Your task to perform on an android device: turn off location Image 0: 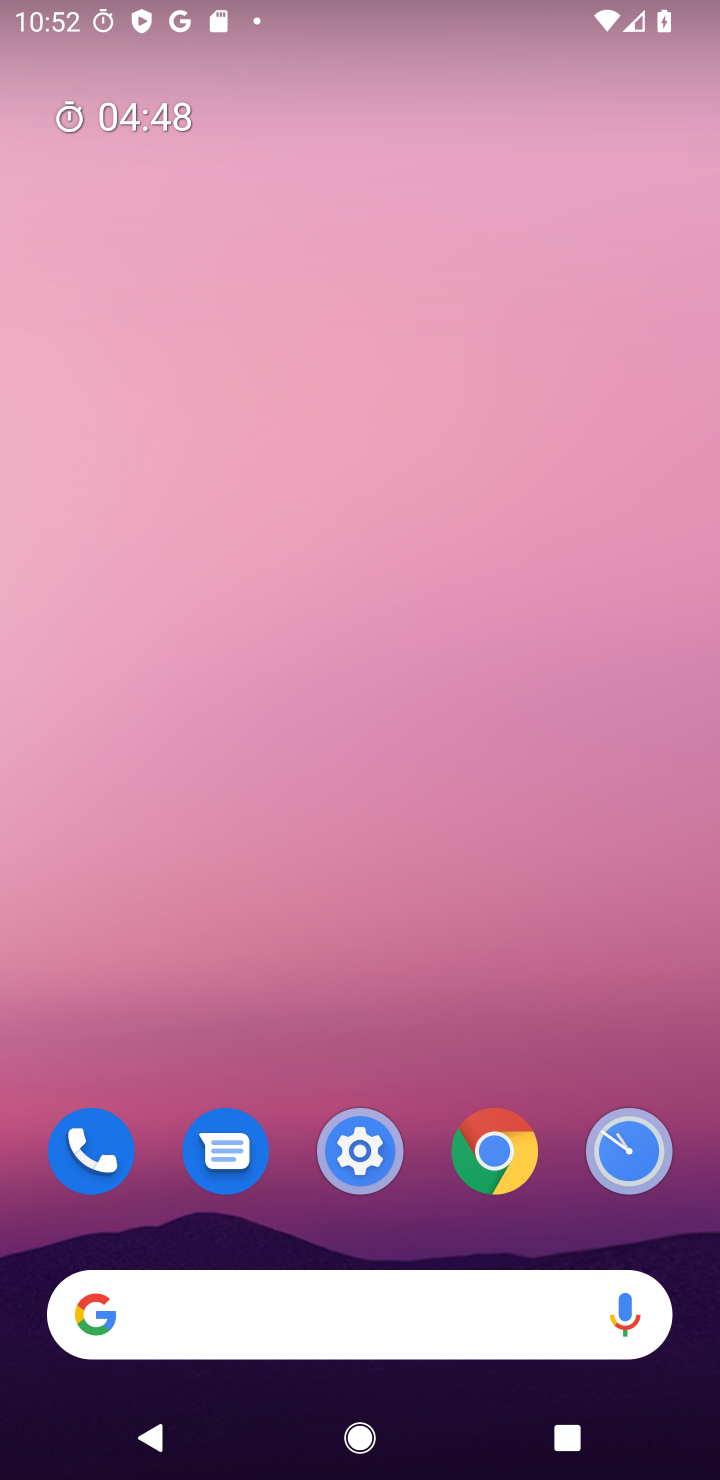
Step 0: click (356, 1158)
Your task to perform on an android device: turn off location Image 1: 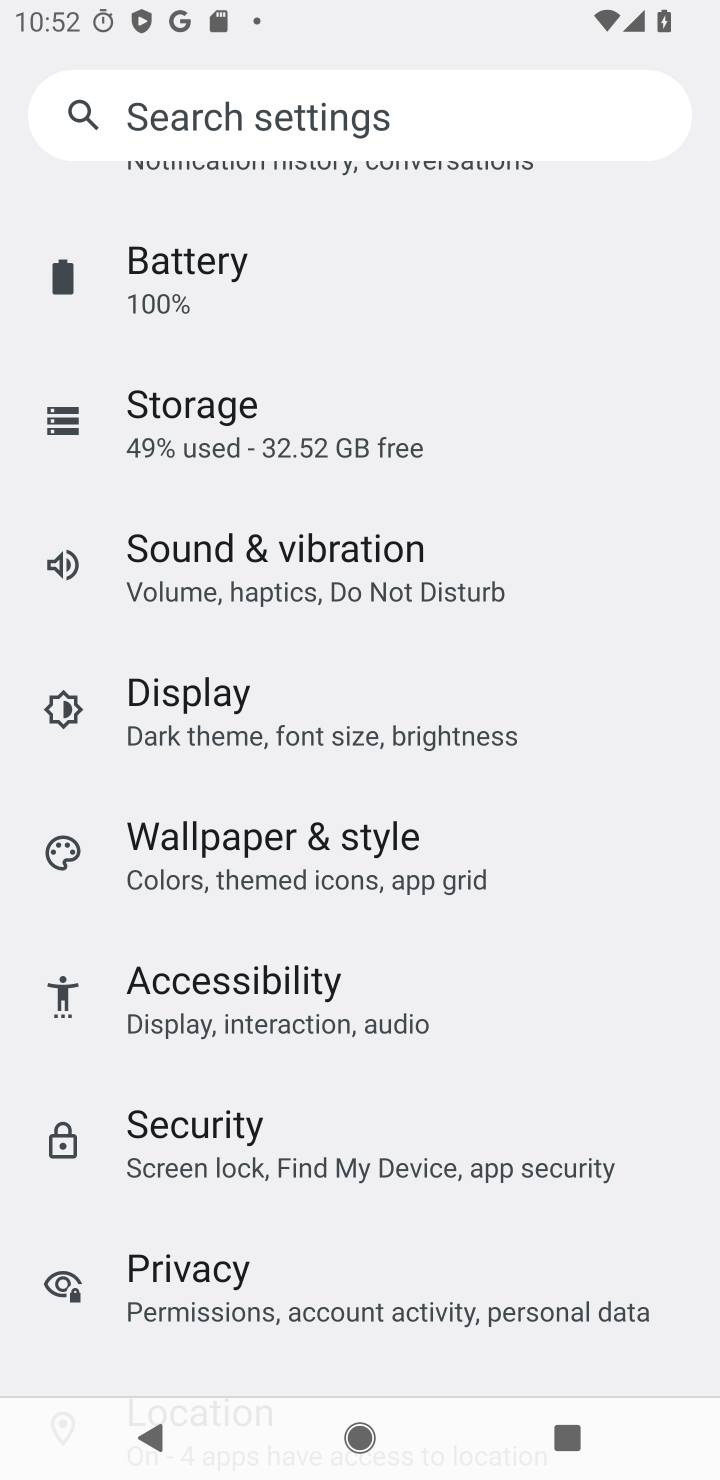
Step 1: drag from (488, 1128) to (269, 586)
Your task to perform on an android device: turn off location Image 2: 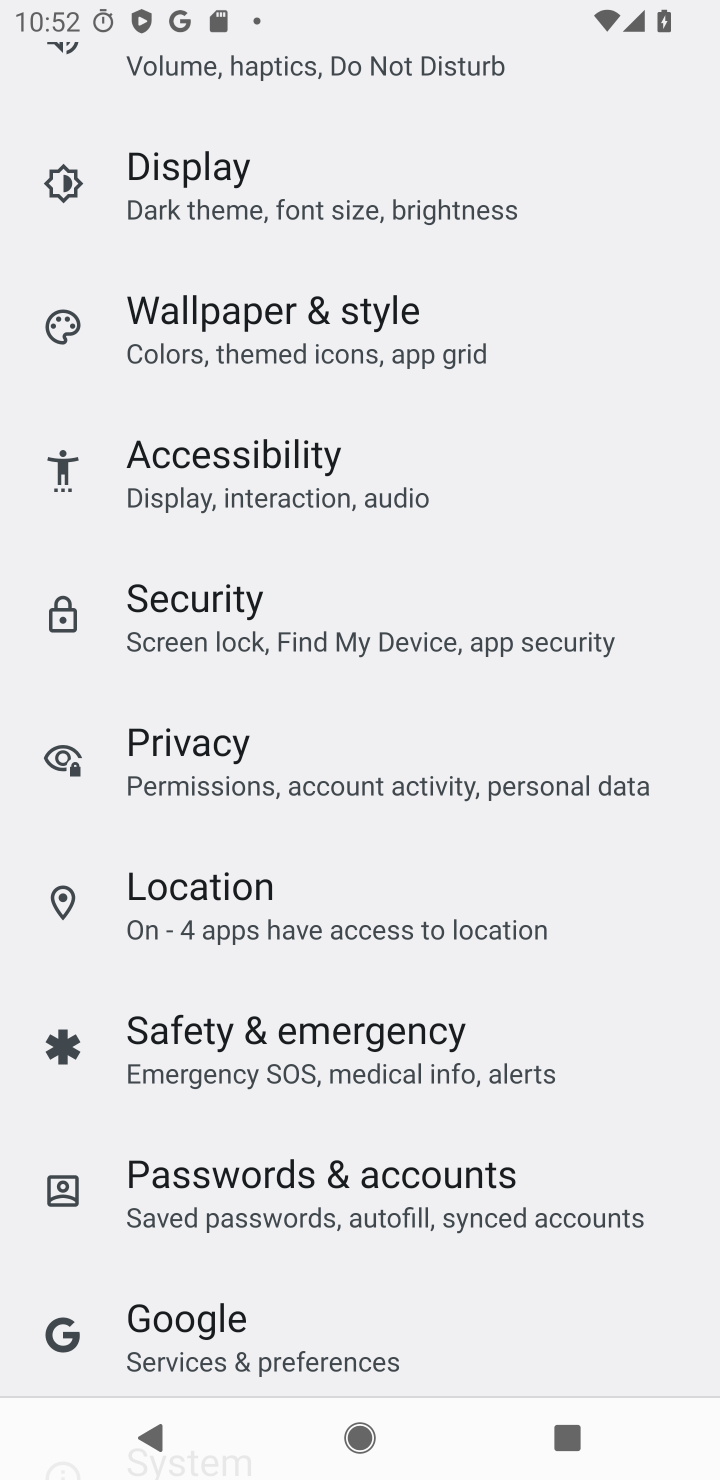
Step 2: drag from (263, 684) to (521, 1302)
Your task to perform on an android device: turn off location Image 3: 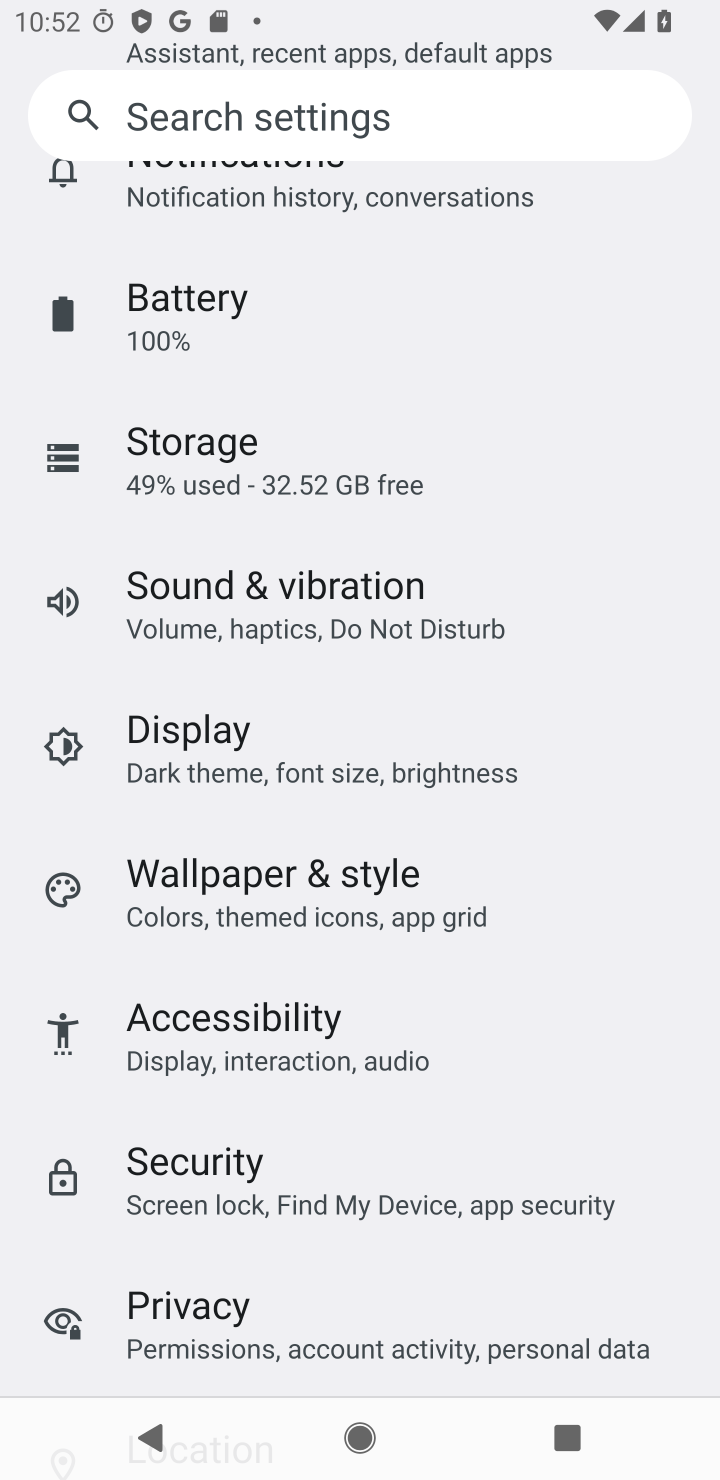
Step 3: drag from (468, 1071) to (302, 521)
Your task to perform on an android device: turn off location Image 4: 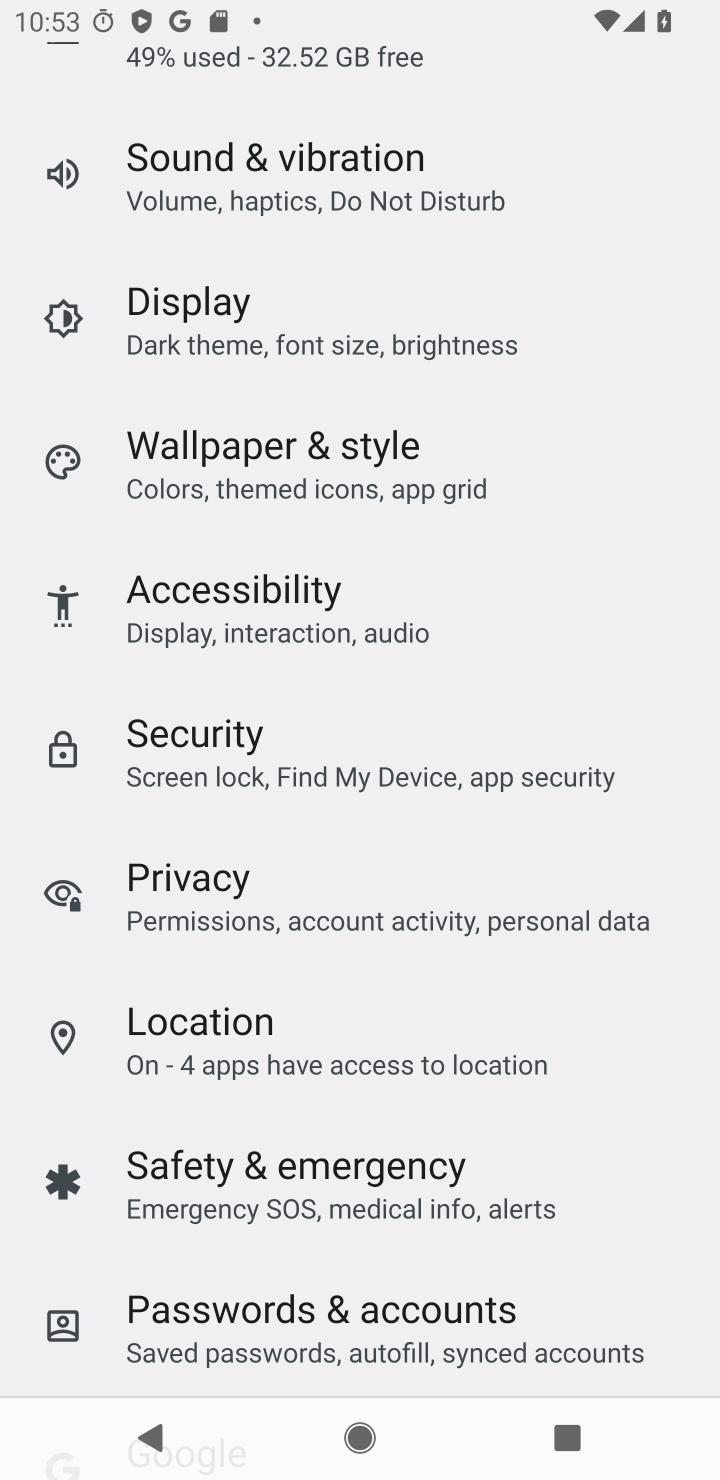
Step 4: click (276, 1044)
Your task to perform on an android device: turn off location Image 5: 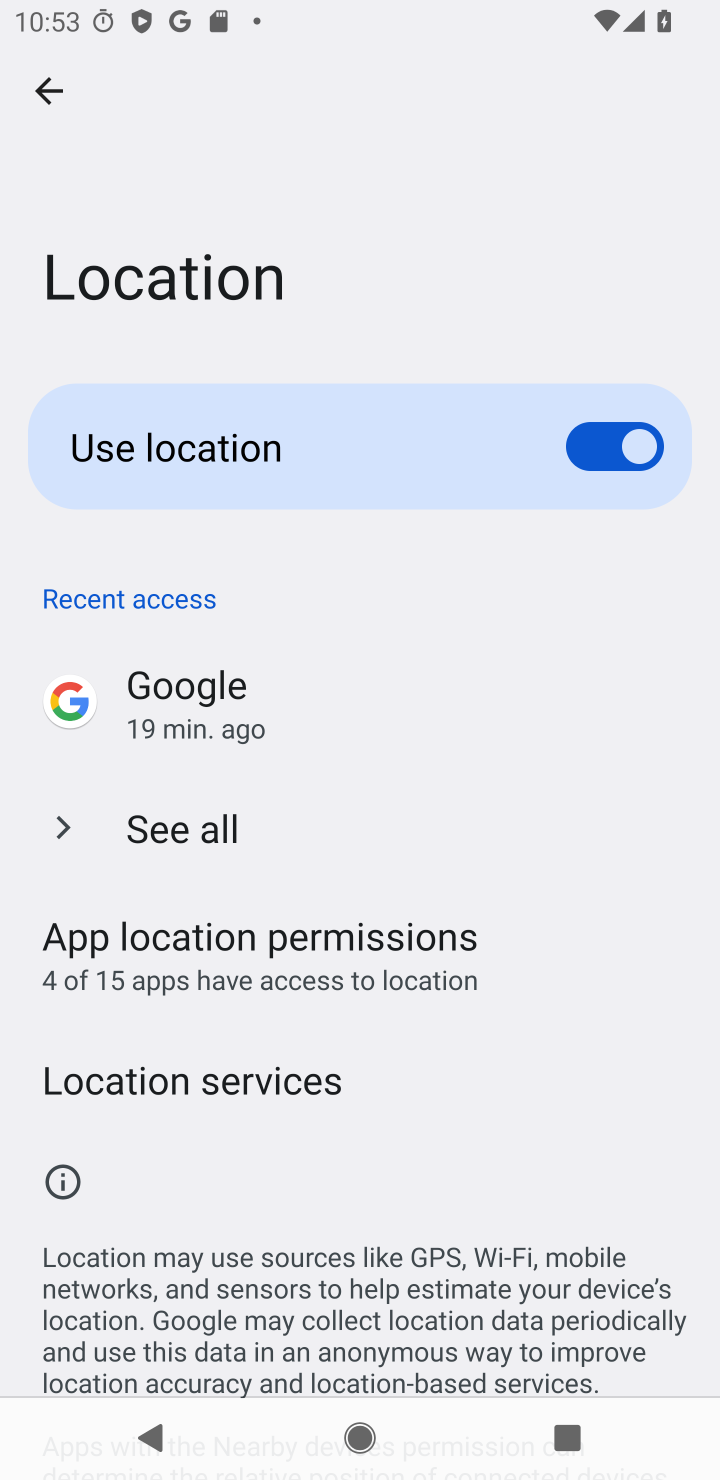
Step 5: click (622, 451)
Your task to perform on an android device: turn off location Image 6: 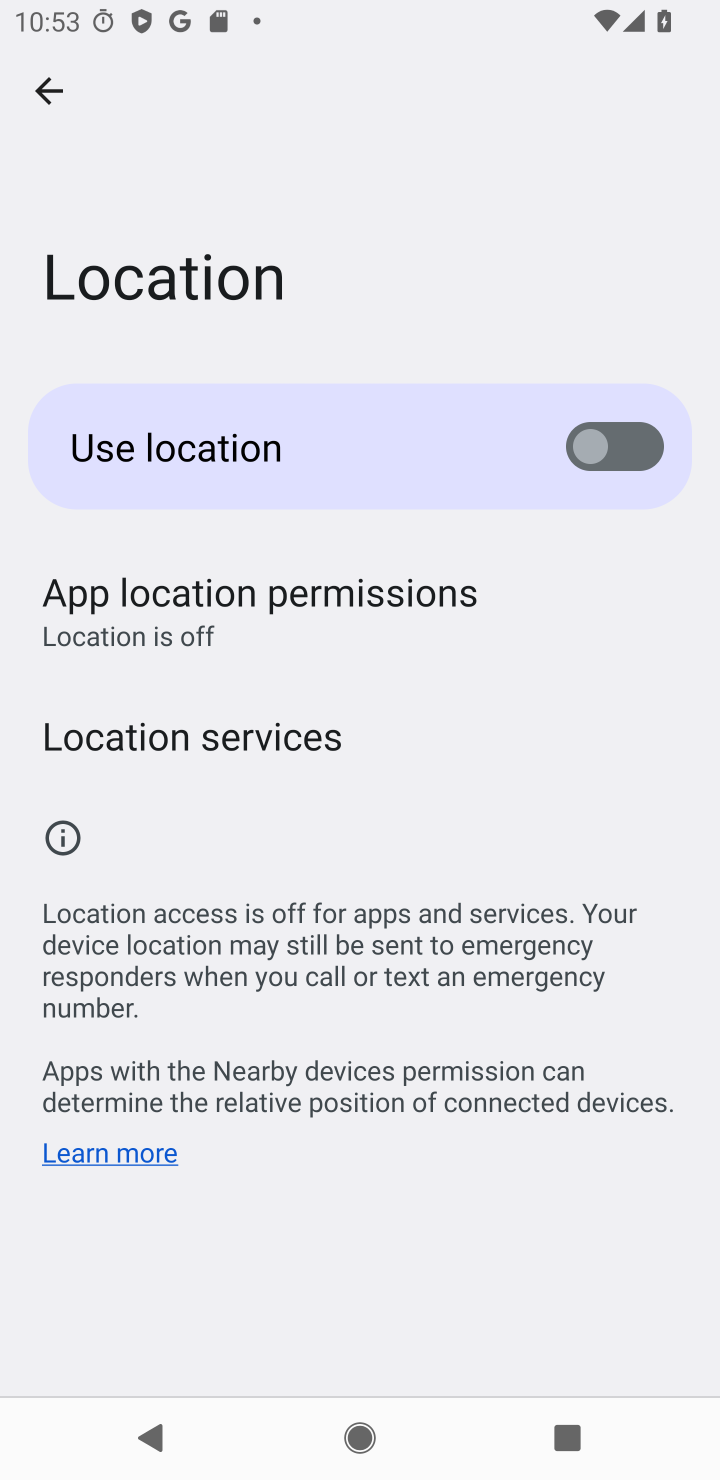
Step 6: task complete